Your task to perform on an android device: What's on my calendar tomorrow? Image 0: 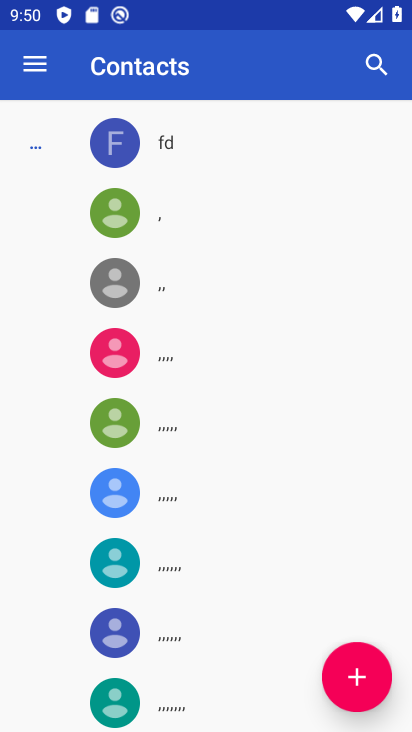
Step 0: press home button
Your task to perform on an android device: What's on my calendar tomorrow? Image 1: 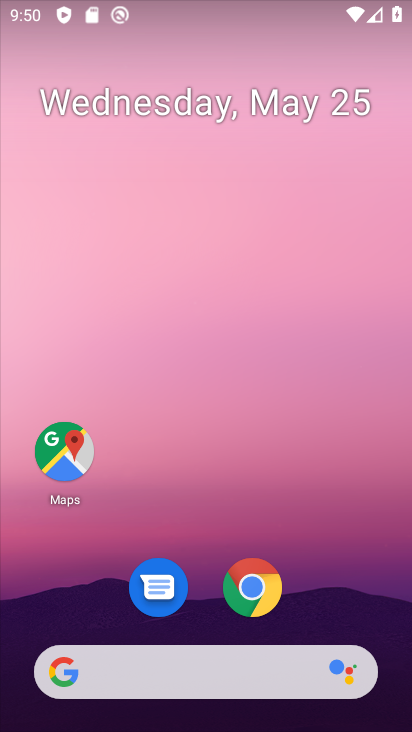
Step 1: drag from (195, 608) to (175, 1)
Your task to perform on an android device: What's on my calendar tomorrow? Image 2: 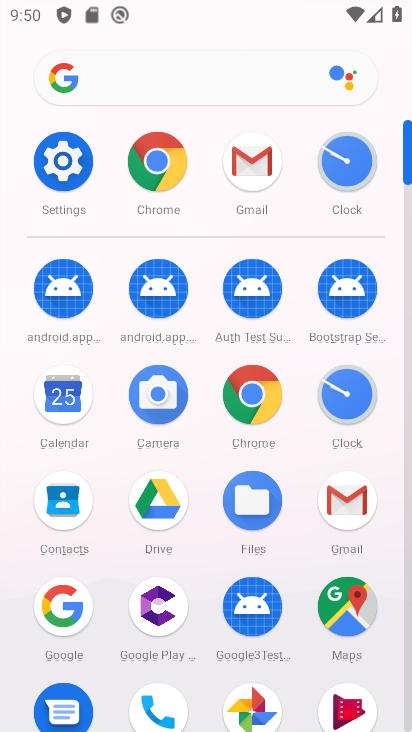
Step 2: click (69, 411)
Your task to perform on an android device: What's on my calendar tomorrow? Image 3: 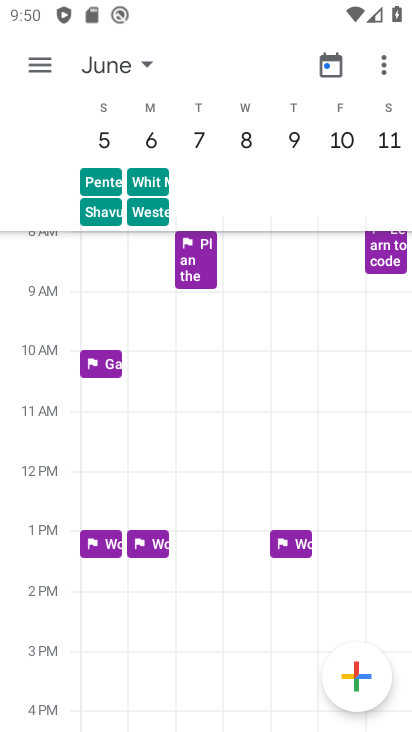
Step 3: drag from (112, 170) to (385, 231)
Your task to perform on an android device: What's on my calendar tomorrow? Image 4: 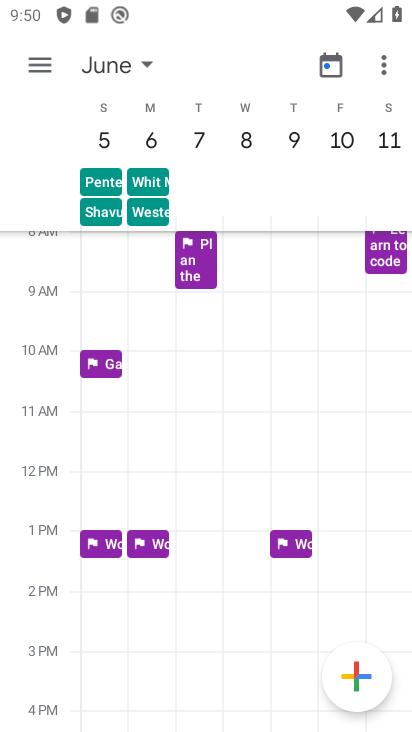
Step 4: drag from (167, 173) to (392, 162)
Your task to perform on an android device: What's on my calendar tomorrow? Image 5: 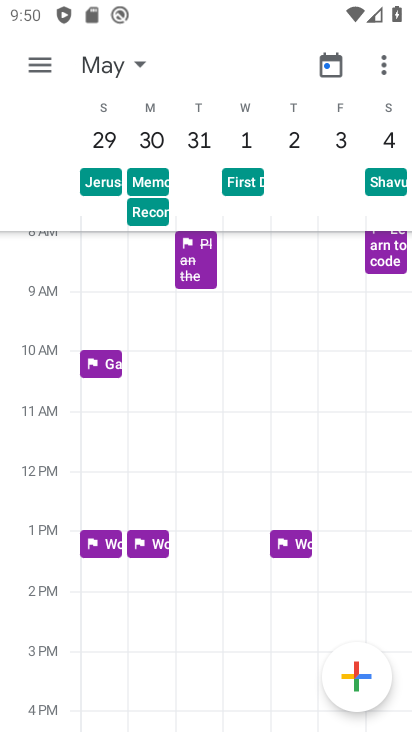
Step 5: drag from (146, 164) to (348, 160)
Your task to perform on an android device: What's on my calendar tomorrow? Image 6: 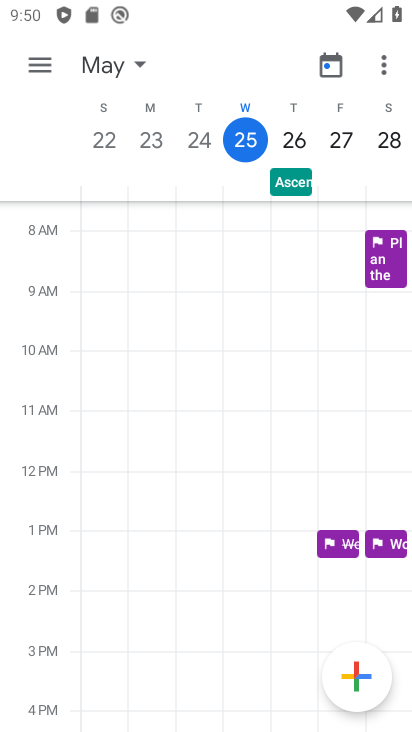
Step 6: click (38, 73)
Your task to perform on an android device: What's on my calendar tomorrow? Image 7: 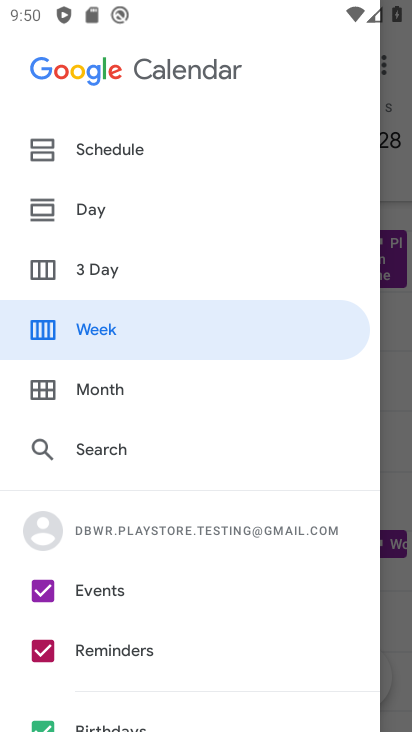
Step 7: click (108, 274)
Your task to perform on an android device: What's on my calendar tomorrow? Image 8: 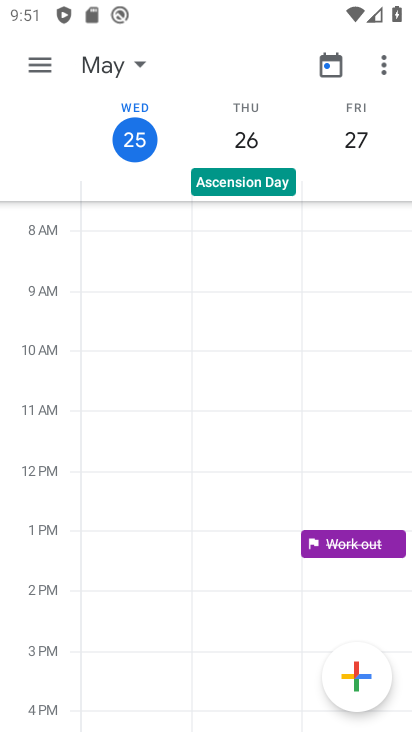
Step 8: task complete